Your task to perform on an android device: install app "Google Maps" Image 0: 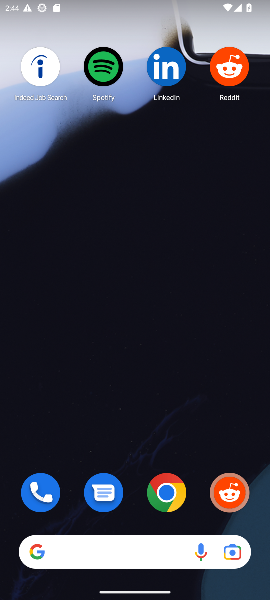
Step 0: drag from (133, 523) to (137, 128)
Your task to perform on an android device: install app "Google Maps" Image 1: 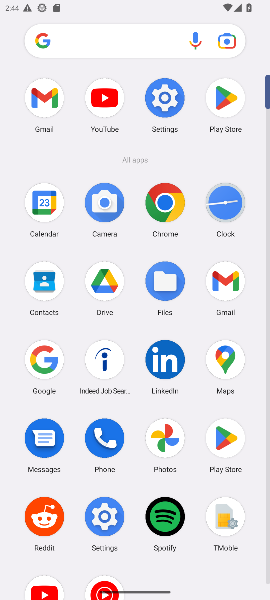
Step 1: click (219, 378)
Your task to perform on an android device: install app "Google Maps" Image 2: 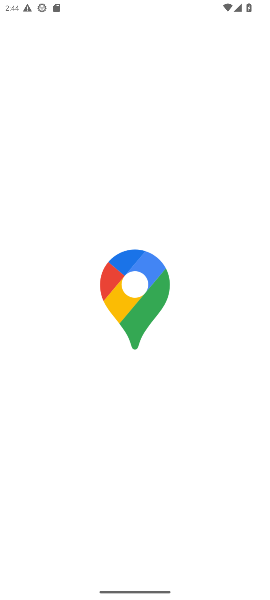
Step 2: task complete